Your task to perform on an android device: Go to calendar. Show me events next week Image 0: 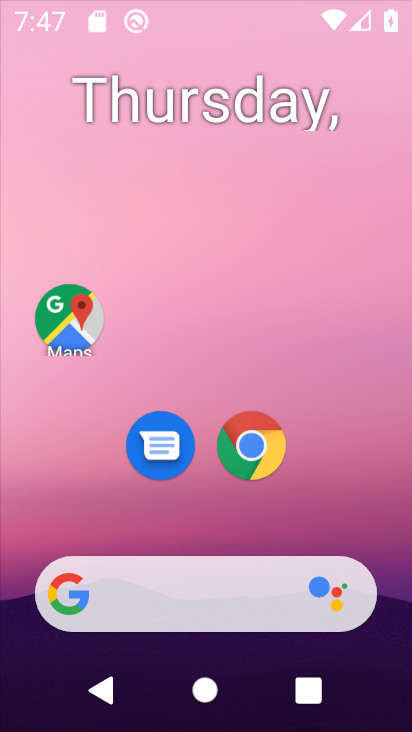
Step 0: drag from (318, 646) to (292, 157)
Your task to perform on an android device: Go to calendar. Show me events next week Image 1: 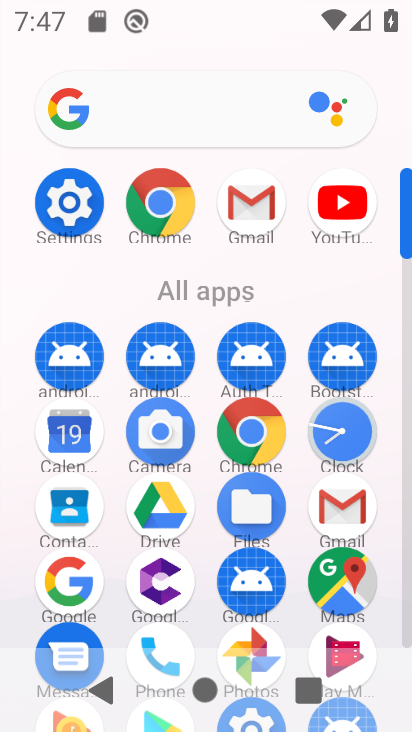
Step 1: drag from (231, 525) to (280, 79)
Your task to perform on an android device: Go to calendar. Show me events next week Image 2: 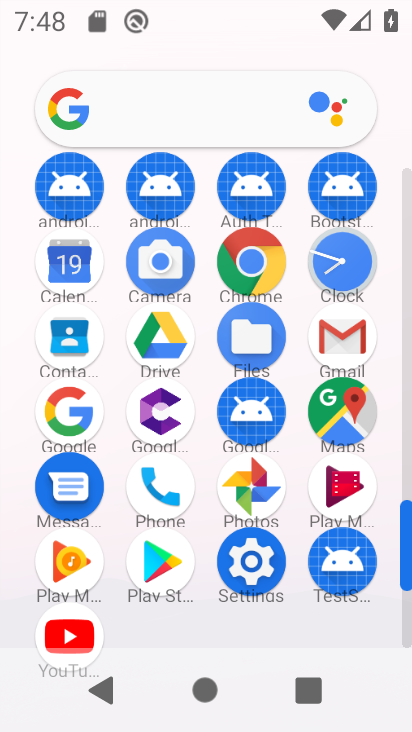
Step 2: click (70, 276)
Your task to perform on an android device: Go to calendar. Show me events next week Image 3: 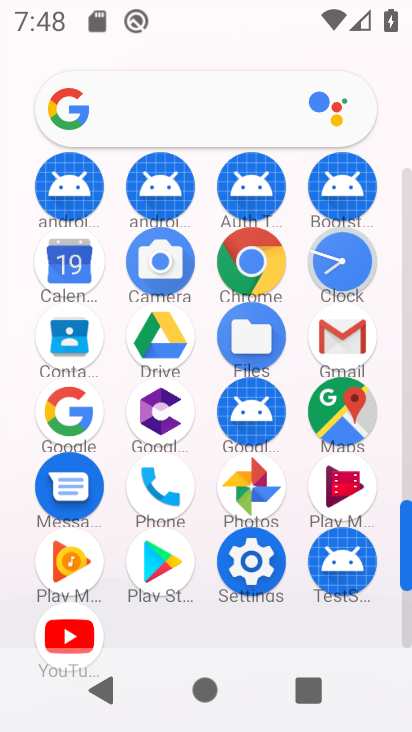
Step 3: click (70, 276)
Your task to perform on an android device: Go to calendar. Show me events next week Image 4: 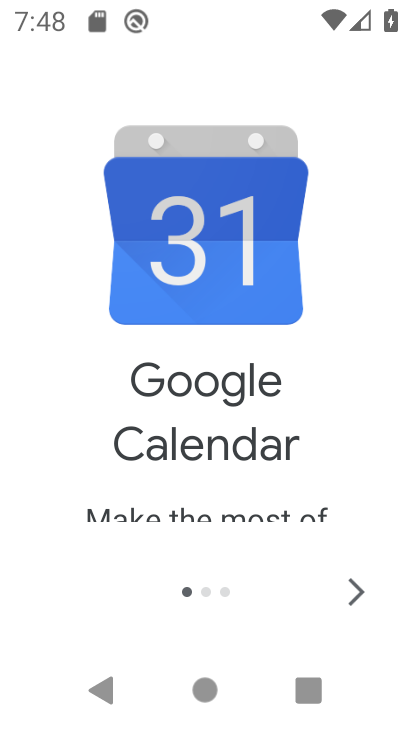
Step 4: click (350, 587)
Your task to perform on an android device: Go to calendar. Show me events next week Image 5: 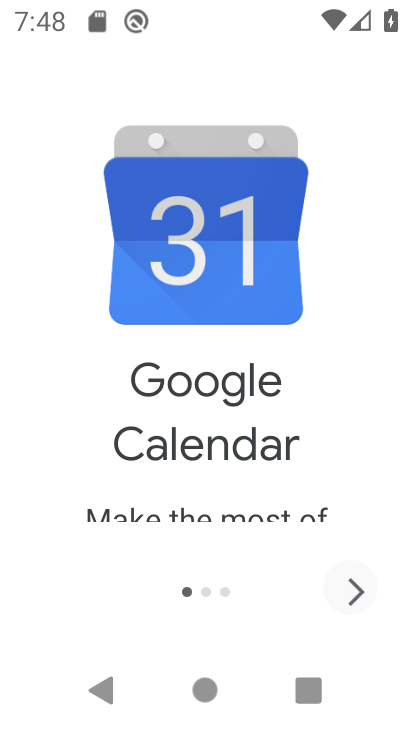
Step 5: click (346, 594)
Your task to perform on an android device: Go to calendar. Show me events next week Image 6: 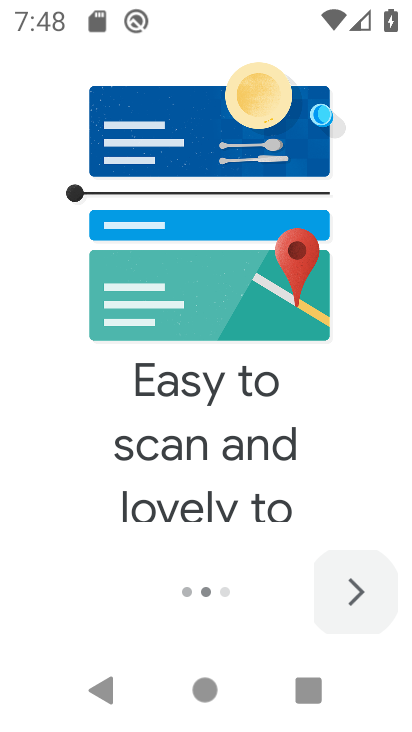
Step 6: click (369, 576)
Your task to perform on an android device: Go to calendar. Show me events next week Image 7: 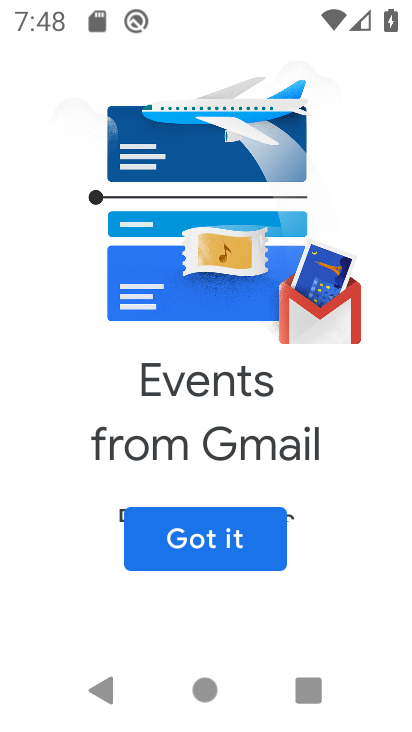
Step 7: click (239, 548)
Your task to perform on an android device: Go to calendar. Show me events next week Image 8: 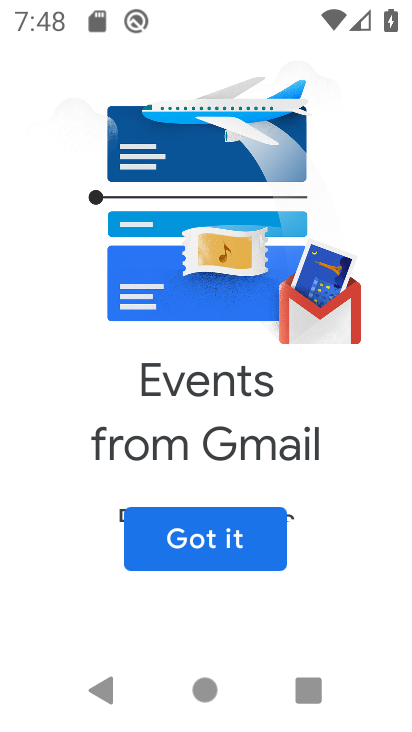
Step 8: click (239, 548)
Your task to perform on an android device: Go to calendar. Show me events next week Image 9: 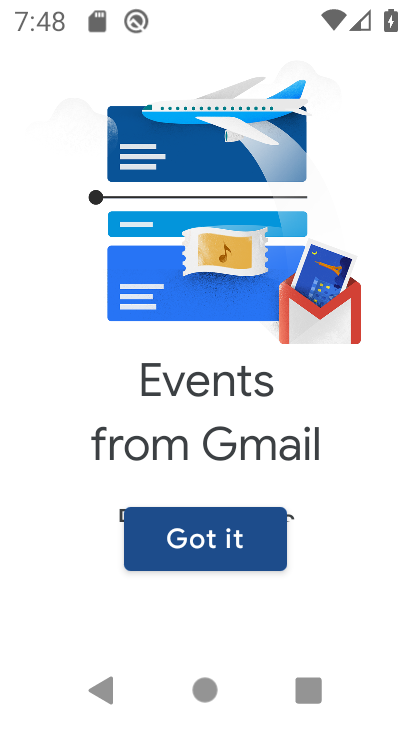
Step 9: click (239, 548)
Your task to perform on an android device: Go to calendar. Show me events next week Image 10: 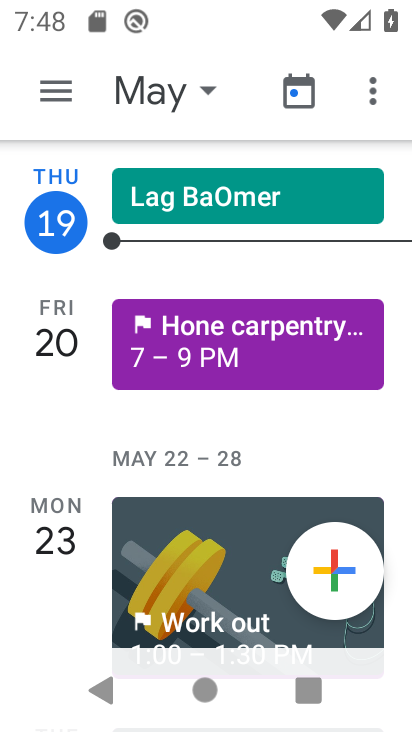
Step 10: drag from (176, 561) to (98, 78)
Your task to perform on an android device: Go to calendar. Show me events next week Image 11: 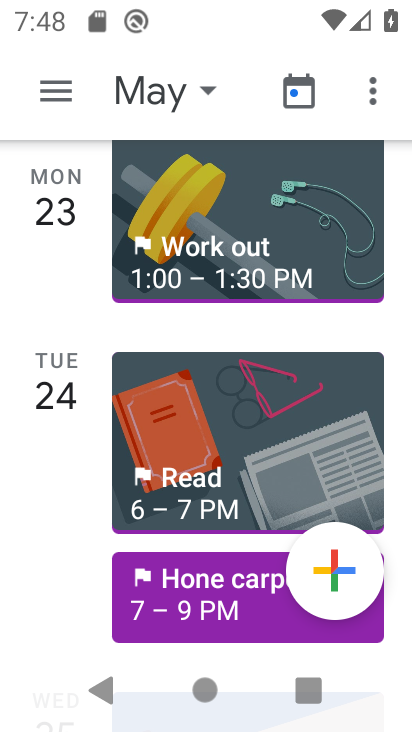
Step 11: click (197, 458)
Your task to perform on an android device: Go to calendar. Show me events next week Image 12: 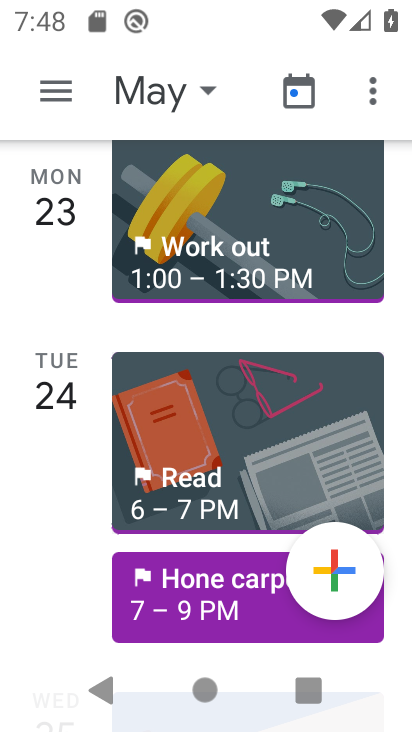
Step 12: click (198, 459)
Your task to perform on an android device: Go to calendar. Show me events next week Image 13: 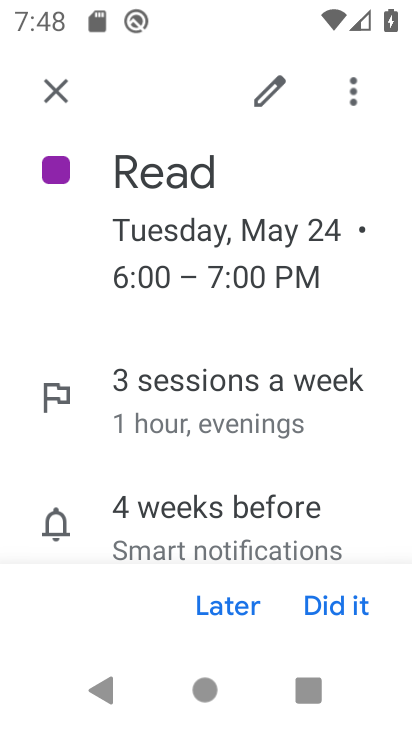
Step 13: click (199, 456)
Your task to perform on an android device: Go to calendar. Show me events next week Image 14: 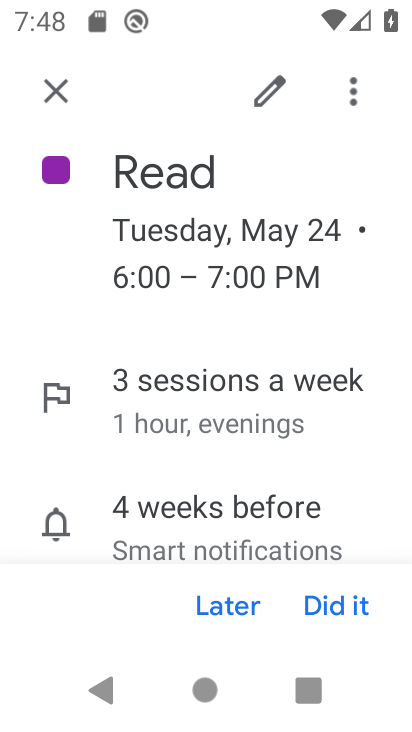
Step 14: task complete